Your task to perform on an android device: Show me popular games on the Play Store Image 0: 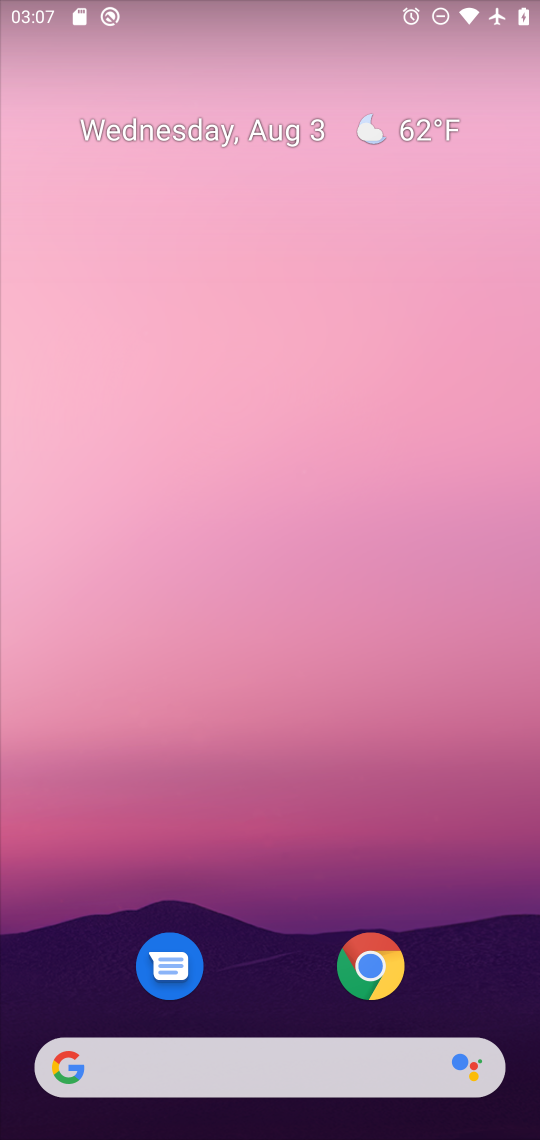
Step 0: drag from (230, 984) to (240, 64)
Your task to perform on an android device: Show me popular games on the Play Store Image 1: 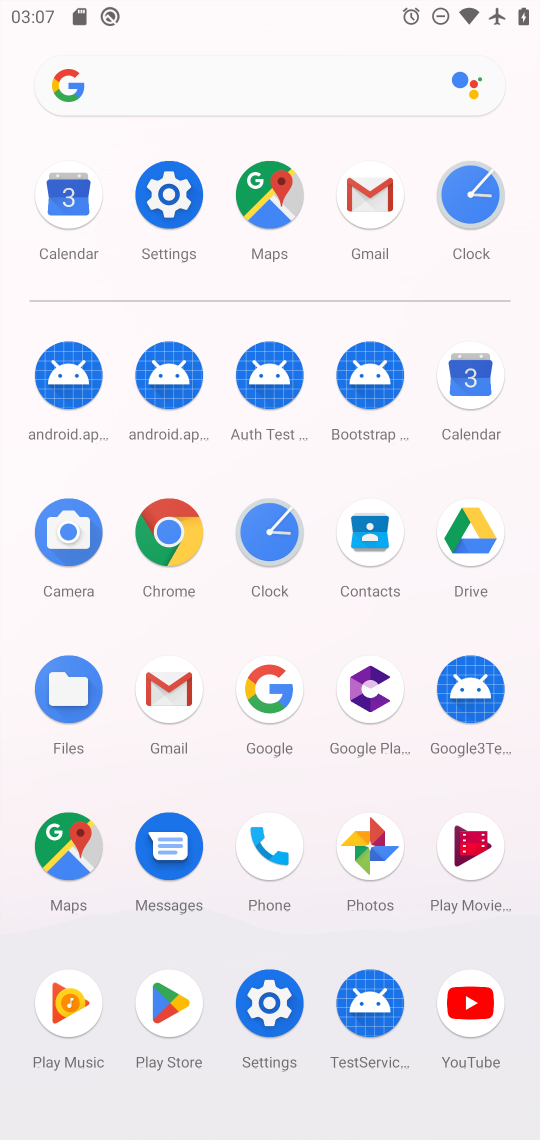
Step 1: click (154, 1012)
Your task to perform on an android device: Show me popular games on the Play Store Image 2: 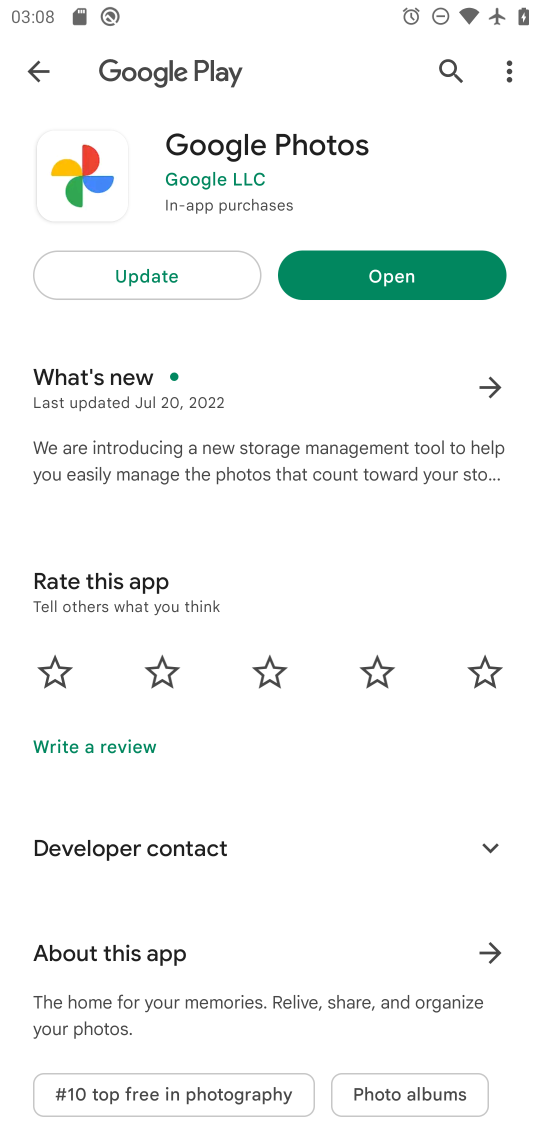
Step 2: click (49, 74)
Your task to perform on an android device: Show me popular games on the Play Store Image 3: 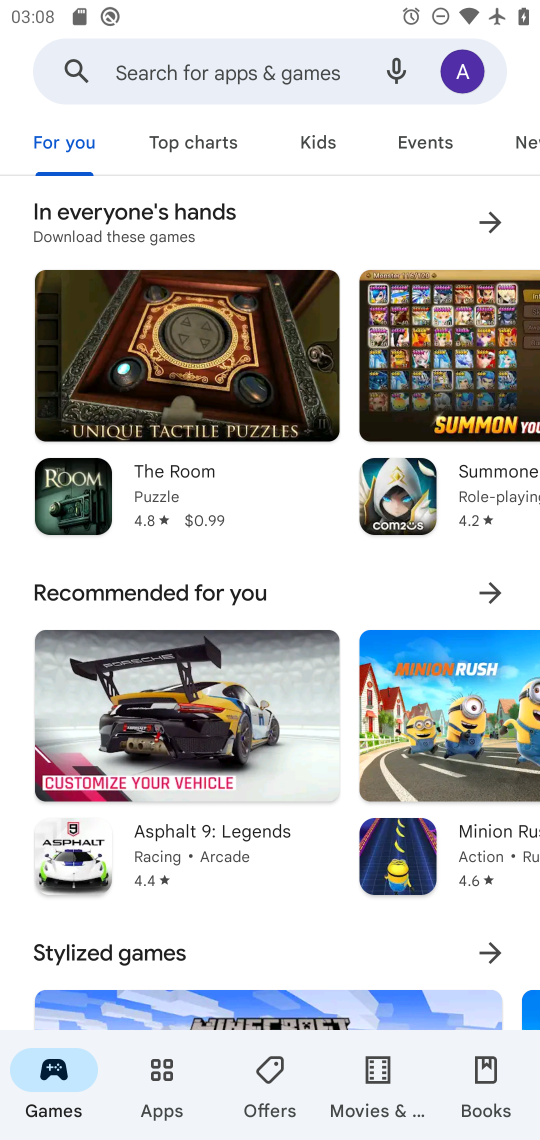
Step 3: click (189, 143)
Your task to perform on an android device: Show me popular games on the Play Store Image 4: 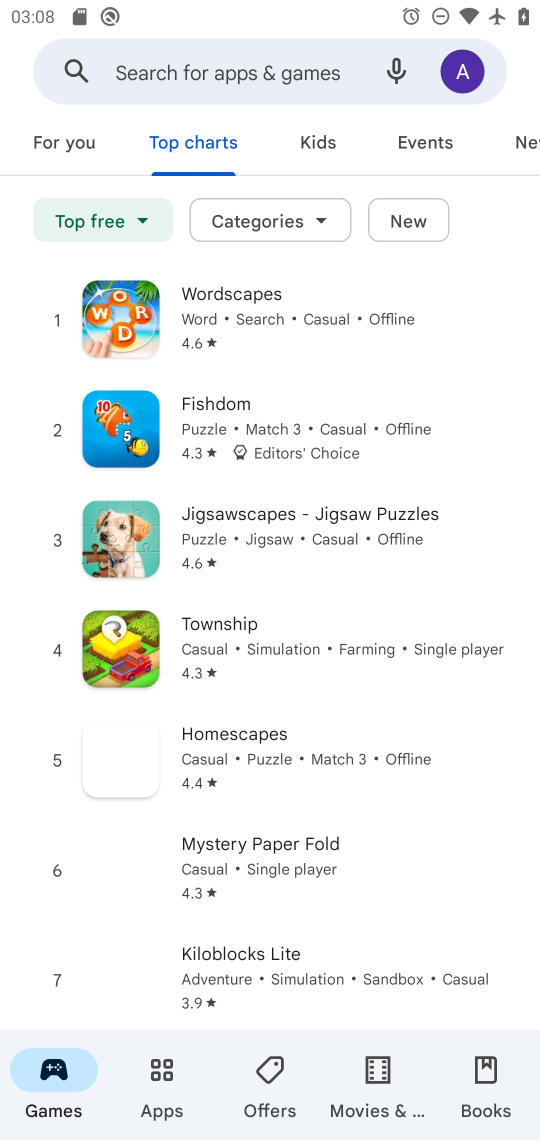
Step 4: task complete